Your task to perform on an android device: Show me recent news Image 0: 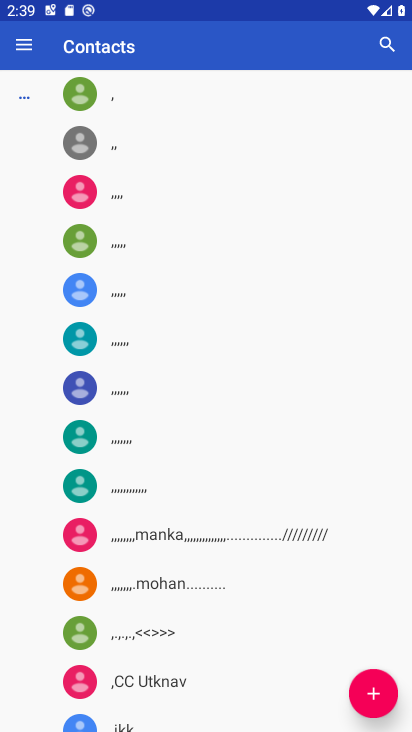
Step 0: press home button
Your task to perform on an android device: Show me recent news Image 1: 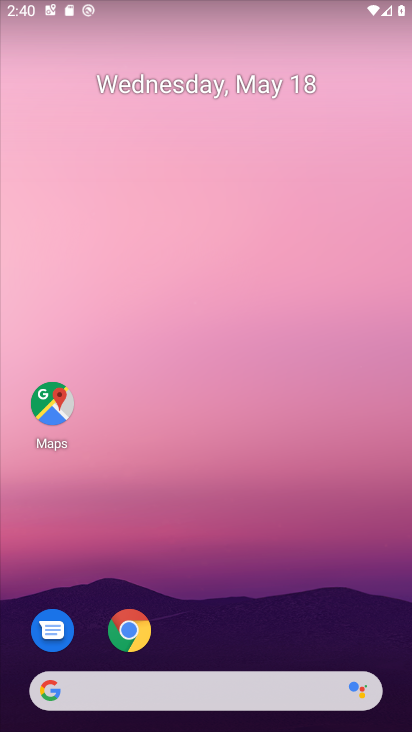
Step 1: task complete